Your task to perform on an android device: turn off airplane mode Image 0: 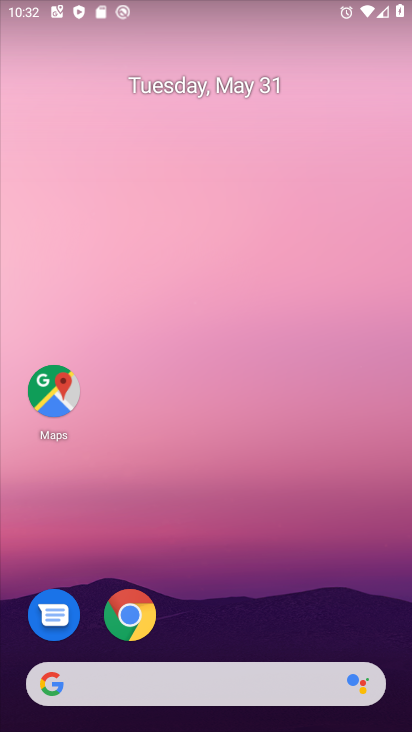
Step 0: drag from (367, 503) to (345, 132)
Your task to perform on an android device: turn off airplane mode Image 1: 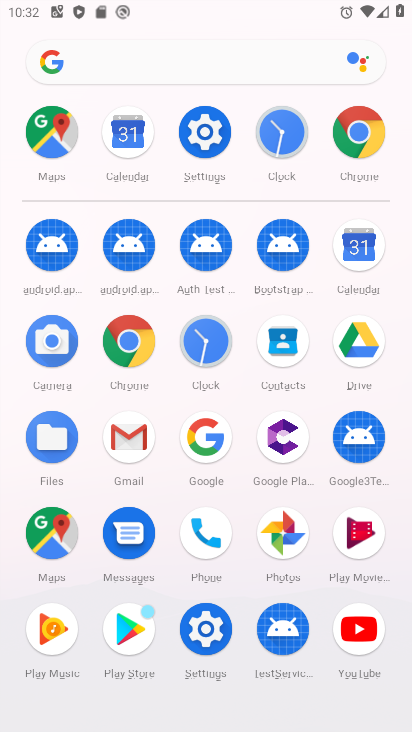
Step 1: click (219, 124)
Your task to perform on an android device: turn off airplane mode Image 2: 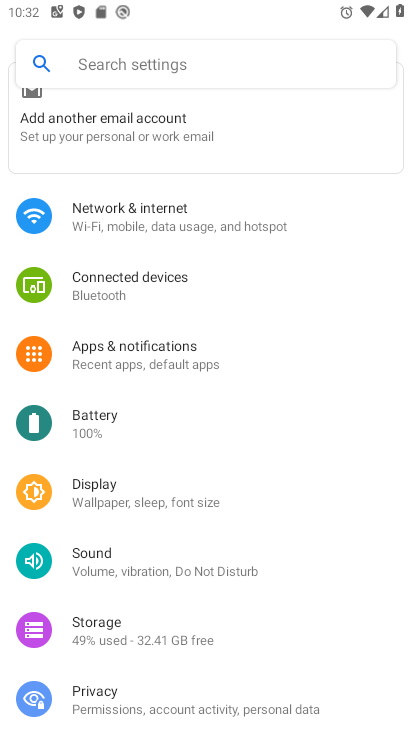
Step 2: click (126, 225)
Your task to perform on an android device: turn off airplane mode Image 3: 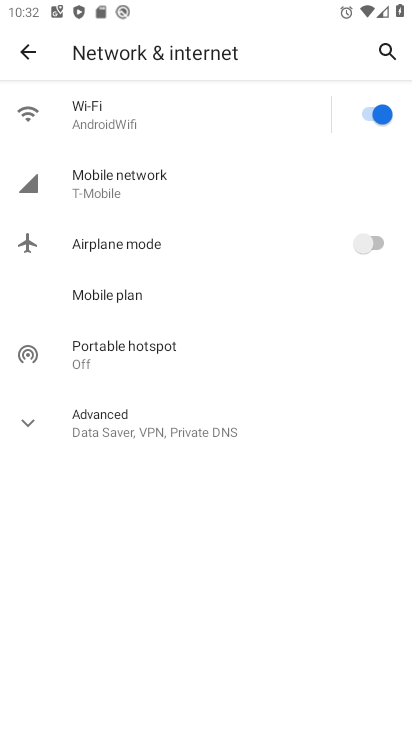
Step 3: task complete